Your task to perform on an android device: turn on improve location accuracy Image 0: 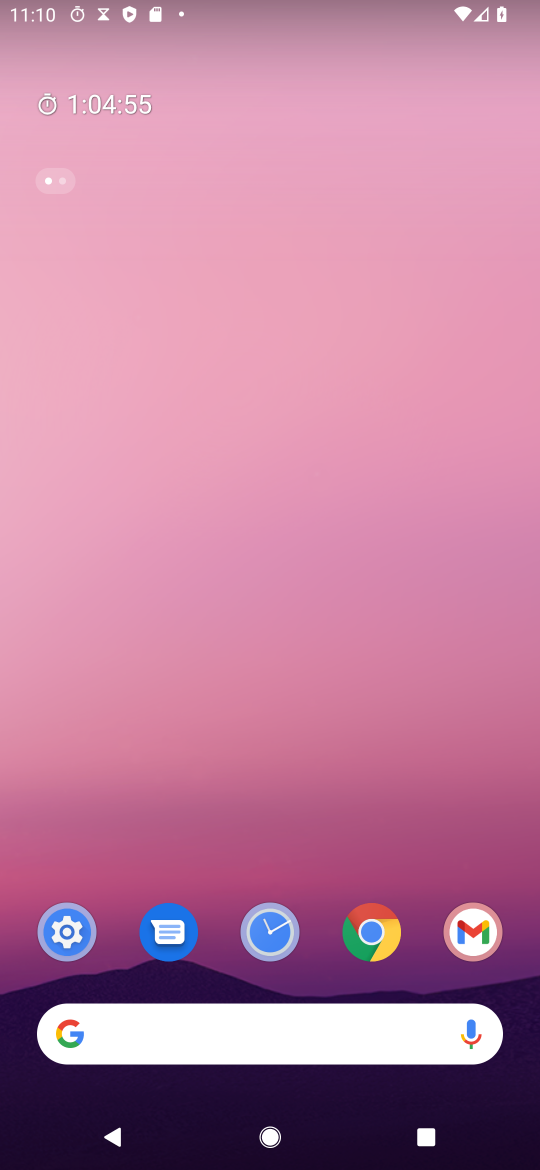
Step 0: click (58, 933)
Your task to perform on an android device: turn on improve location accuracy Image 1: 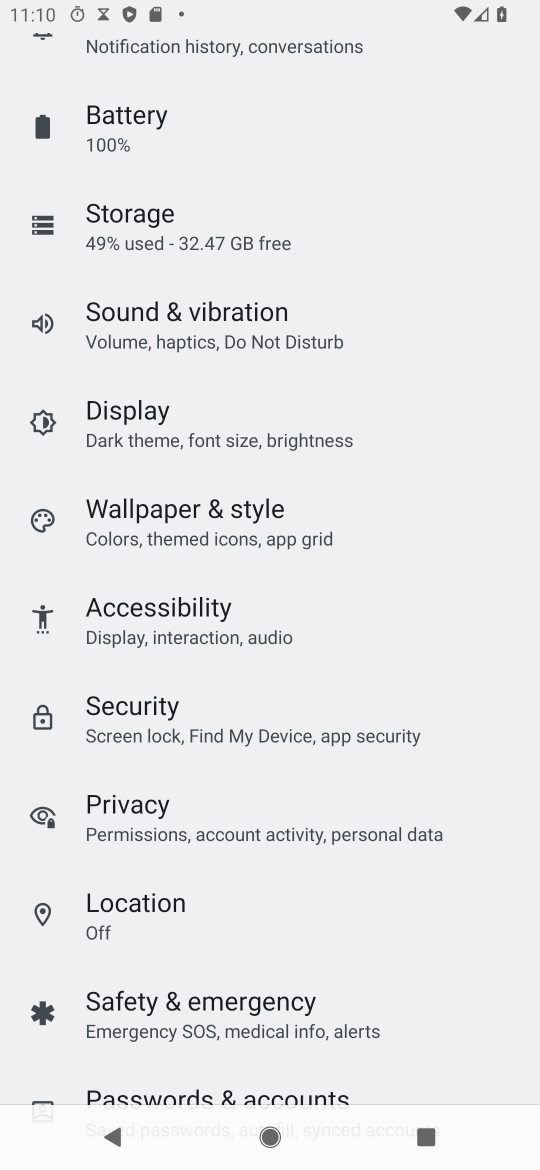
Step 1: click (280, 904)
Your task to perform on an android device: turn on improve location accuracy Image 2: 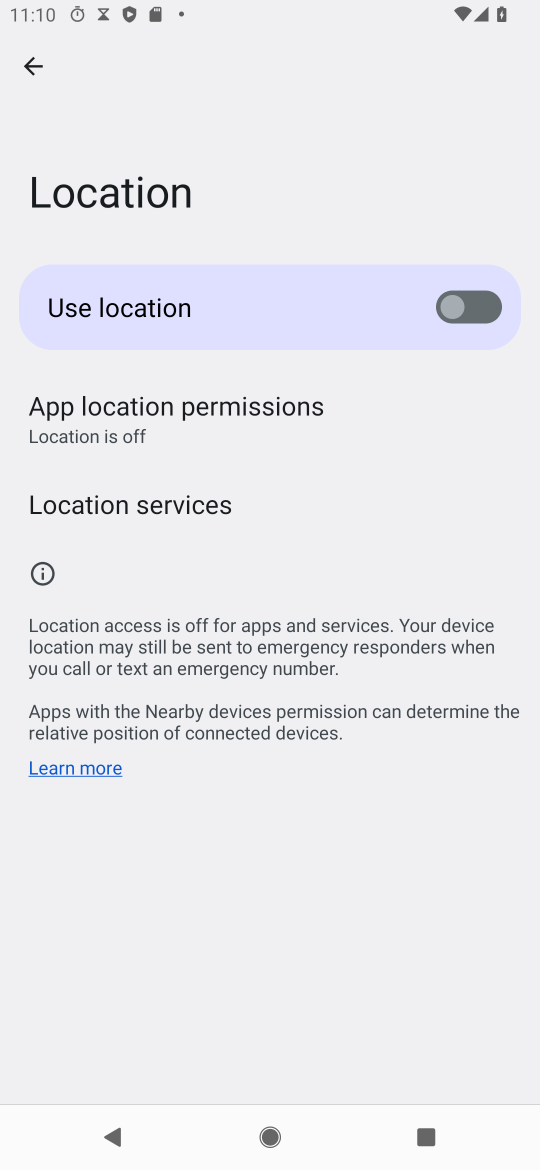
Step 2: drag from (475, 306) to (462, 511)
Your task to perform on an android device: turn on improve location accuracy Image 3: 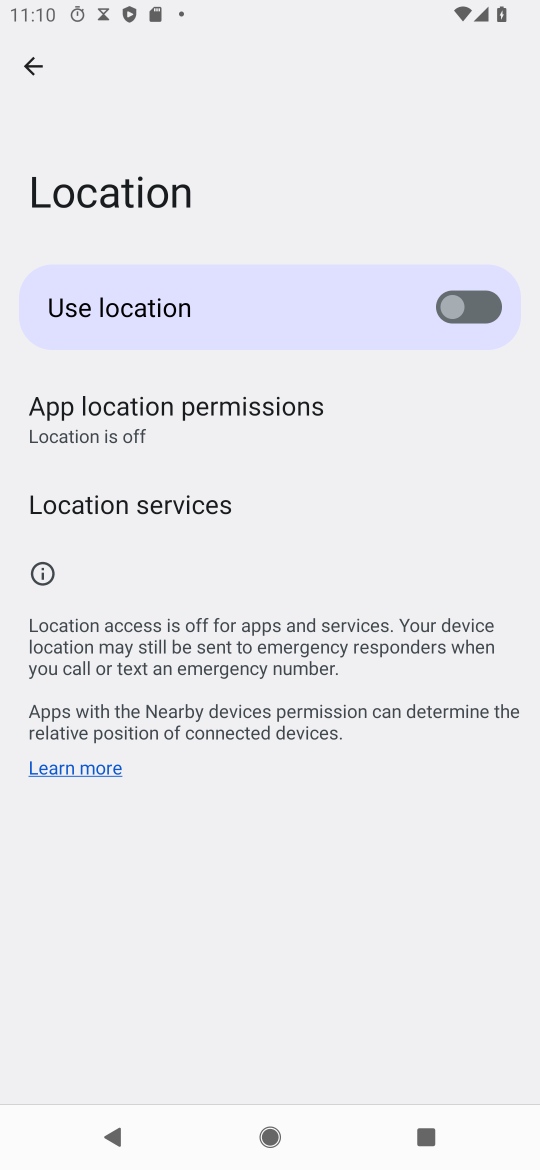
Step 3: click (453, 510)
Your task to perform on an android device: turn on improve location accuracy Image 4: 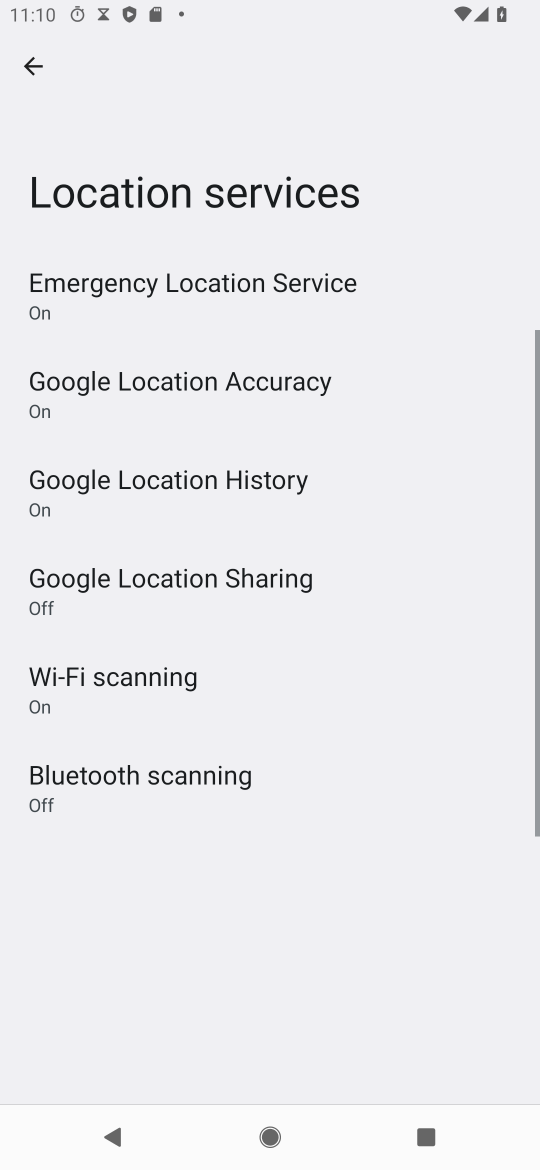
Step 4: click (373, 404)
Your task to perform on an android device: turn on improve location accuracy Image 5: 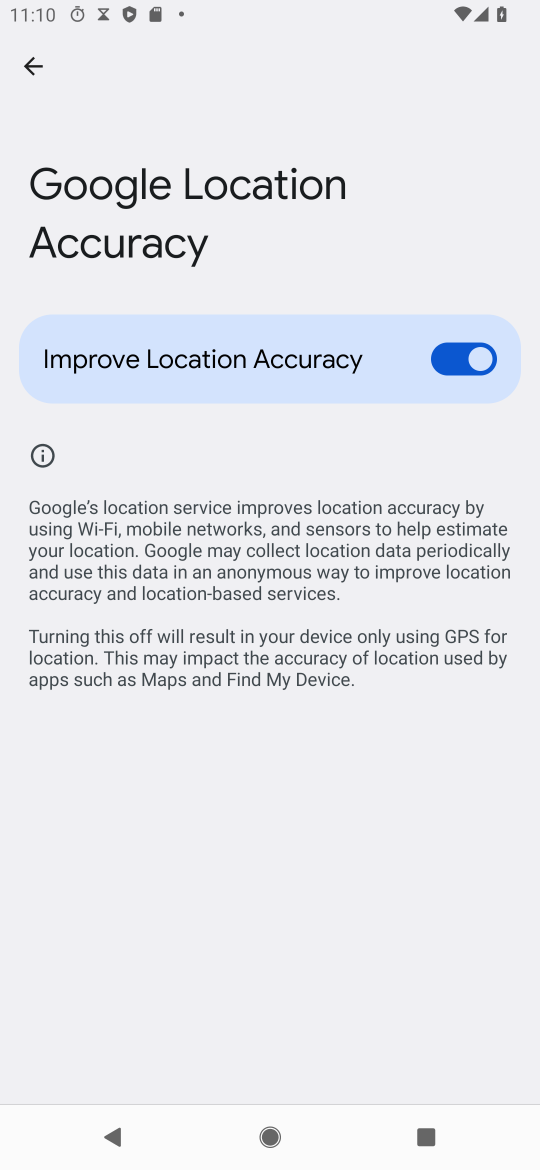
Step 5: task complete